Your task to perform on an android device: empty trash in the gmail app Image 0: 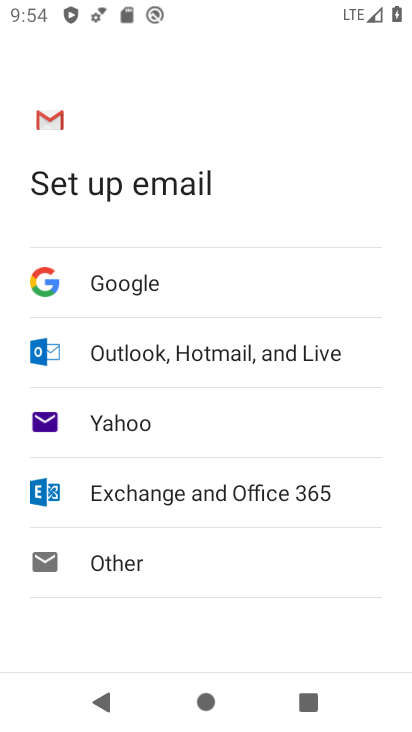
Step 0: press home button
Your task to perform on an android device: empty trash in the gmail app Image 1: 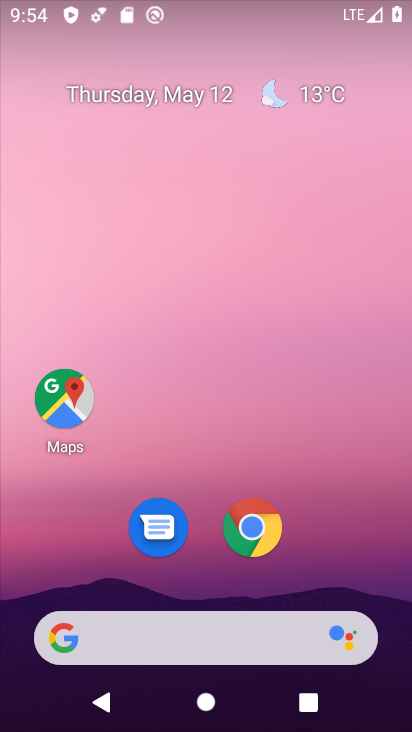
Step 1: drag from (341, 553) to (237, 78)
Your task to perform on an android device: empty trash in the gmail app Image 2: 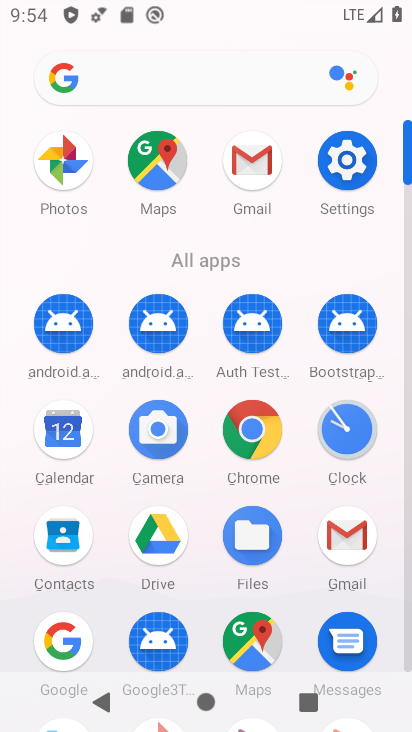
Step 2: click (254, 164)
Your task to perform on an android device: empty trash in the gmail app Image 3: 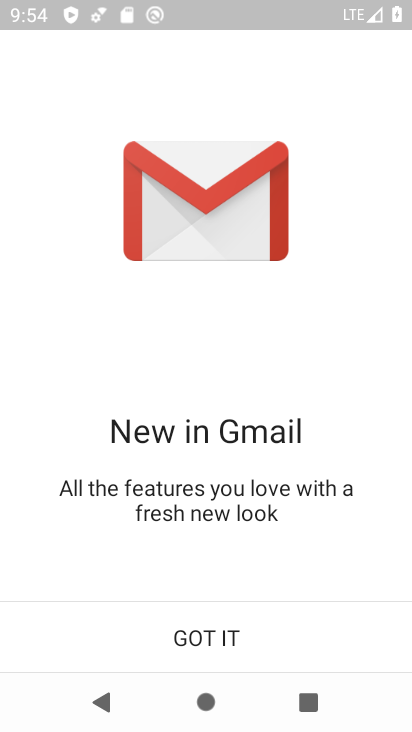
Step 3: click (214, 637)
Your task to perform on an android device: empty trash in the gmail app Image 4: 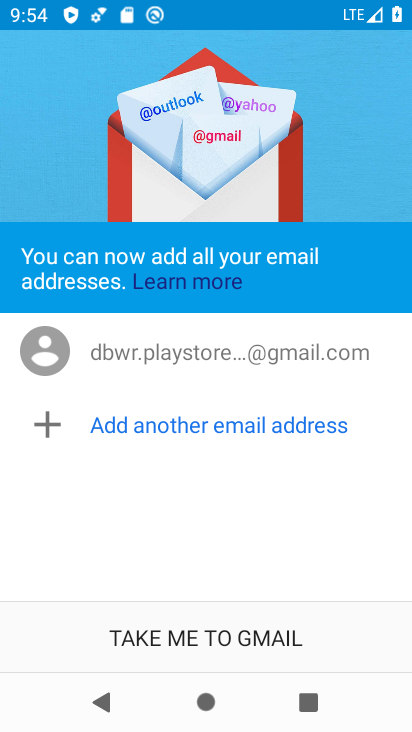
Step 4: click (214, 637)
Your task to perform on an android device: empty trash in the gmail app Image 5: 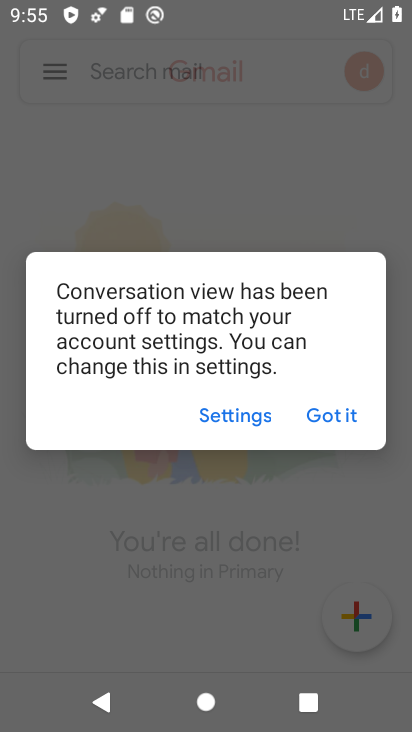
Step 5: click (330, 416)
Your task to perform on an android device: empty trash in the gmail app Image 6: 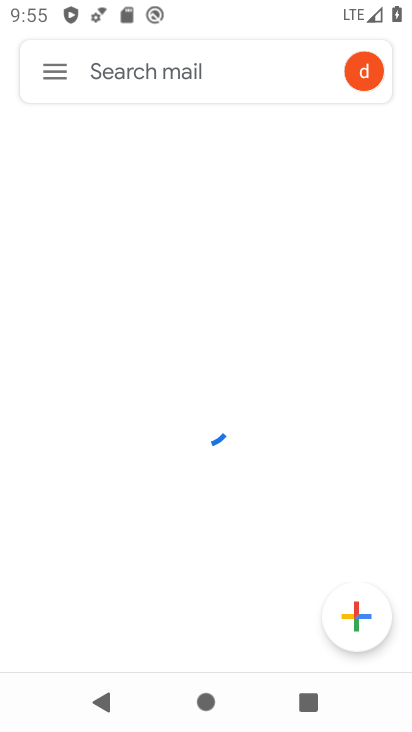
Step 6: click (61, 74)
Your task to perform on an android device: empty trash in the gmail app Image 7: 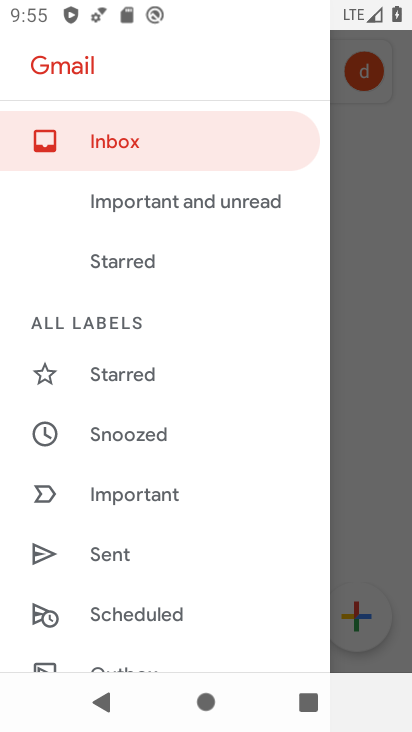
Step 7: drag from (106, 467) to (153, 374)
Your task to perform on an android device: empty trash in the gmail app Image 8: 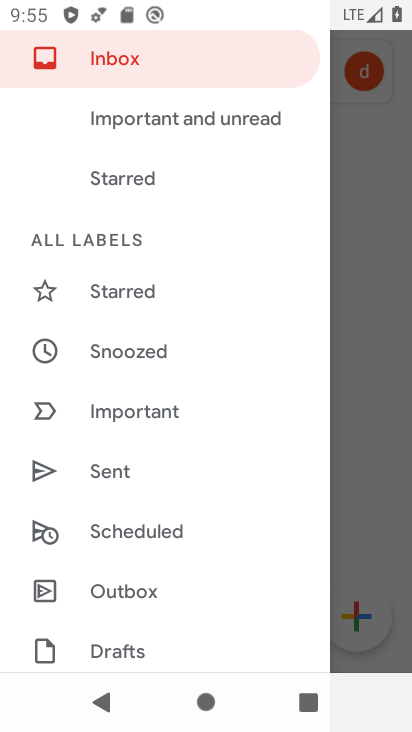
Step 8: drag from (110, 560) to (160, 438)
Your task to perform on an android device: empty trash in the gmail app Image 9: 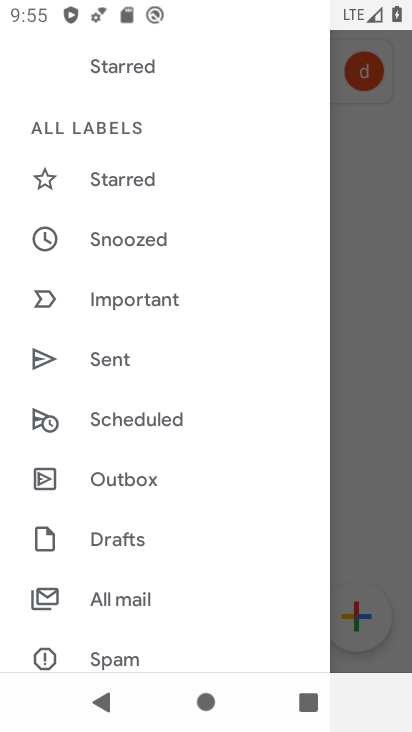
Step 9: drag from (92, 564) to (153, 434)
Your task to perform on an android device: empty trash in the gmail app Image 10: 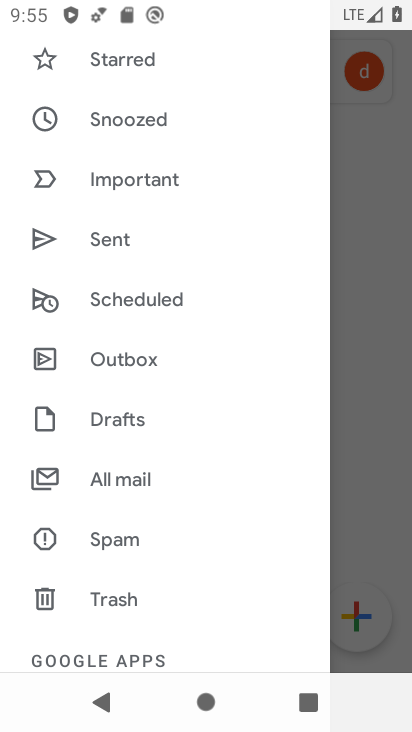
Step 10: click (131, 603)
Your task to perform on an android device: empty trash in the gmail app Image 11: 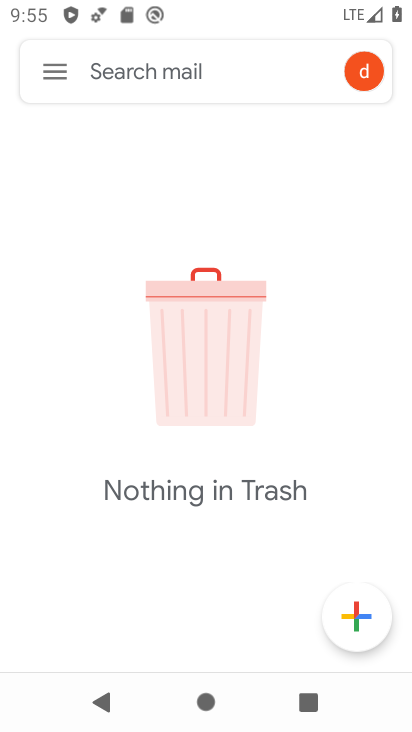
Step 11: task complete